Your task to perform on an android device: Search for "razer huntsman" on ebay.com, select the first entry, add it to the cart, then select checkout. Image 0: 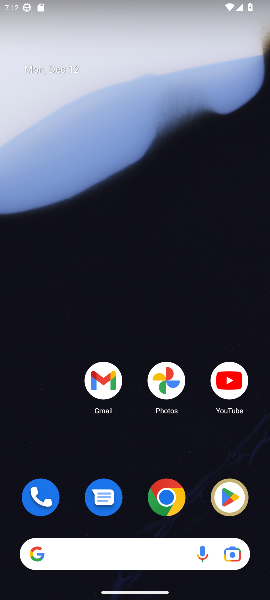
Step 0: press home button
Your task to perform on an android device: Search for "razer huntsman" on ebay.com, select the first entry, add it to the cart, then select checkout. Image 1: 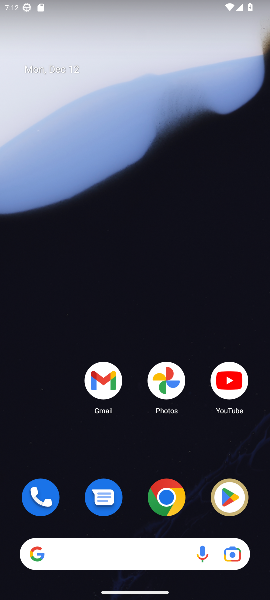
Step 1: drag from (48, 420) to (44, 34)
Your task to perform on an android device: Search for "razer huntsman" on ebay.com, select the first entry, add it to the cart, then select checkout. Image 2: 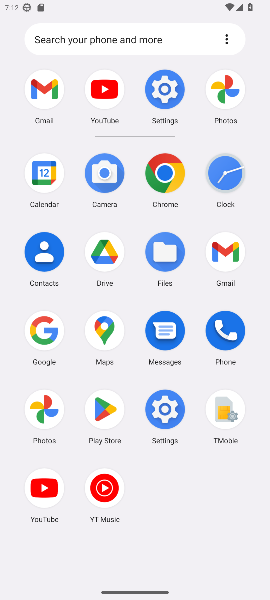
Step 2: click (43, 326)
Your task to perform on an android device: Search for "razer huntsman" on ebay.com, select the first entry, add it to the cart, then select checkout. Image 3: 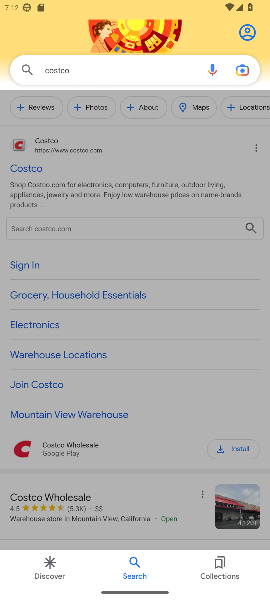
Step 3: click (112, 64)
Your task to perform on an android device: Search for "razer huntsman" on ebay.com, select the first entry, add it to the cart, then select checkout. Image 4: 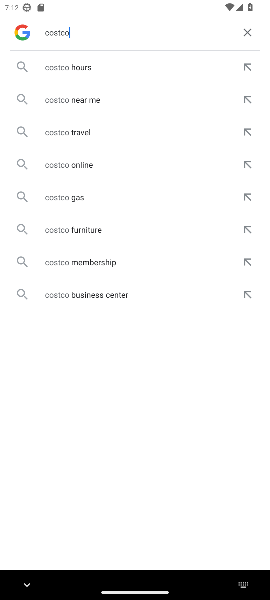
Step 4: click (246, 29)
Your task to perform on an android device: Search for "razer huntsman" on ebay.com, select the first entry, add it to the cart, then select checkout. Image 5: 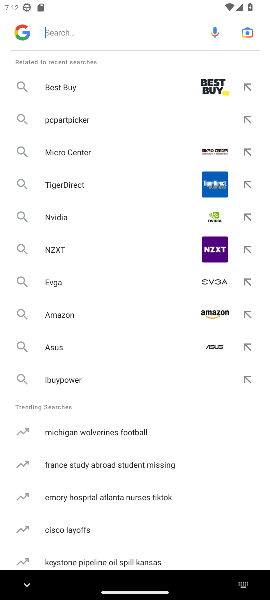
Step 5: type "ebay.com"
Your task to perform on an android device: Search for "razer huntsman" on ebay.com, select the first entry, add it to the cart, then select checkout. Image 6: 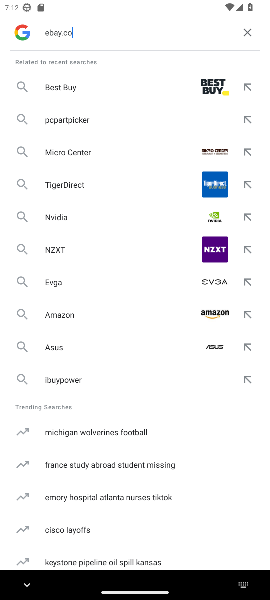
Step 6: press enter
Your task to perform on an android device: Search for "razer huntsman" on ebay.com, select the first entry, add it to the cart, then select checkout. Image 7: 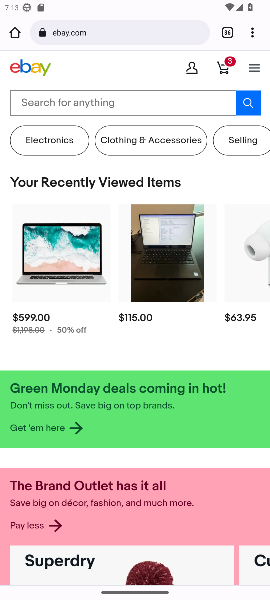
Step 7: click (32, 95)
Your task to perform on an android device: Search for "razer huntsman" on ebay.com, select the first entry, add it to the cart, then select checkout. Image 8: 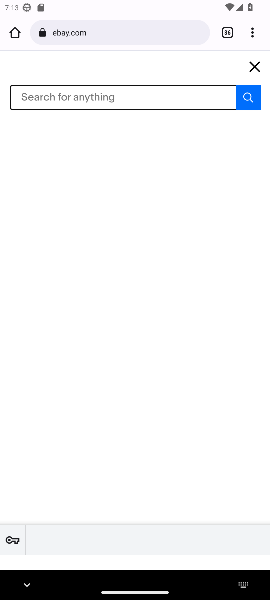
Step 8: type "razer huntsman"
Your task to perform on an android device: Search for "razer huntsman" on ebay.com, select the first entry, add it to the cart, then select checkout. Image 9: 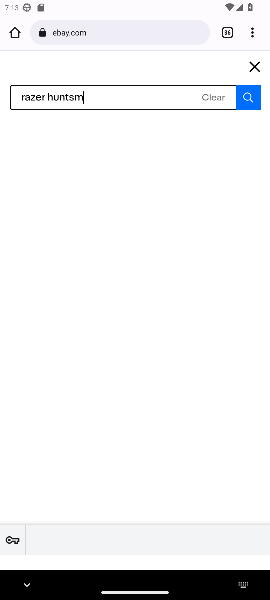
Step 9: press enter
Your task to perform on an android device: Search for "razer huntsman" on ebay.com, select the first entry, add it to the cart, then select checkout. Image 10: 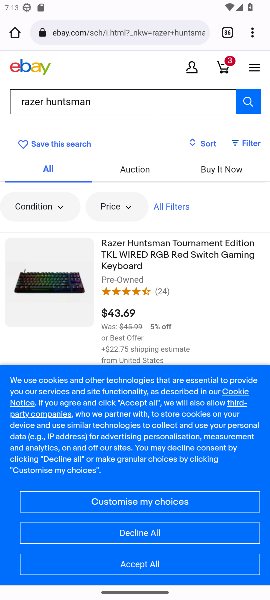
Step 10: click (123, 246)
Your task to perform on an android device: Search for "razer huntsman" on ebay.com, select the first entry, add it to the cart, then select checkout. Image 11: 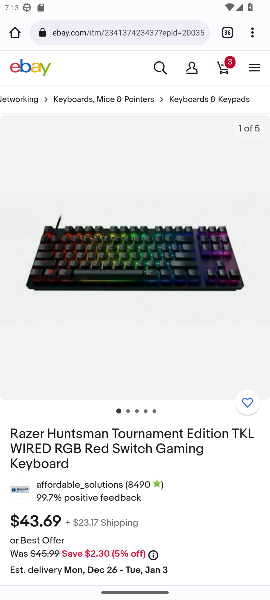
Step 11: drag from (152, 314) to (153, 161)
Your task to perform on an android device: Search for "razer huntsman" on ebay.com, select the first entry, add it to the cart, then select checkout. Image 12: 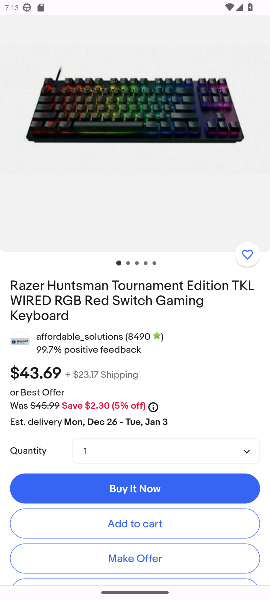
Step 12: drag from (162, 510) to (162, 129)
Your task to perform on an android device: Search for "razer huntsman" on ebay.com, select the first entry, add it to the cart, then select checkout. Image 13: 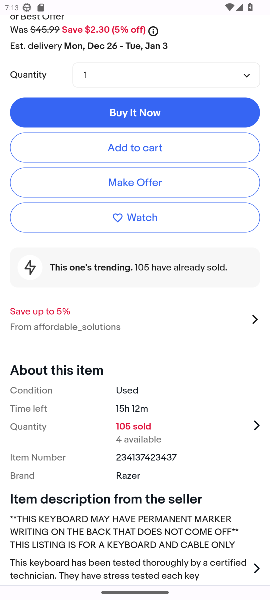
Step 13: click (124, 146)
Your task to perform on an android device: Search for "razer huntsman" on ebay.com, select the first entry, add it to the cart, then select checkout. Image 14: 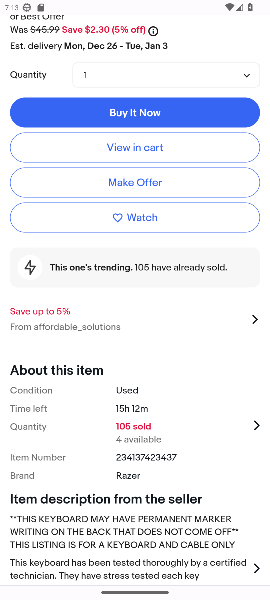
Step 14: click (136, 148)
Your task to perform on an android device: Search for "razer huntsman" on ebay.com, select the first entry, add it to the cart, then select checkout. Image 15: 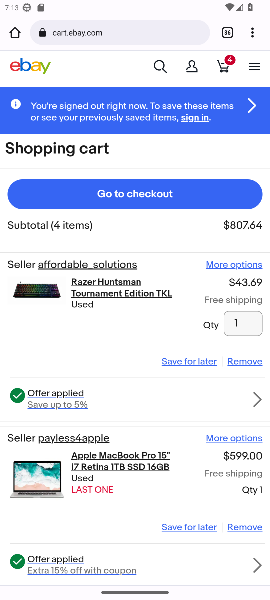
Step 15: click (137, 199)
Your task to perform on an android device: Search for "razer huntsman" on ebay.com, select the first entry, add it to the cart, then select checkout. Image 16: 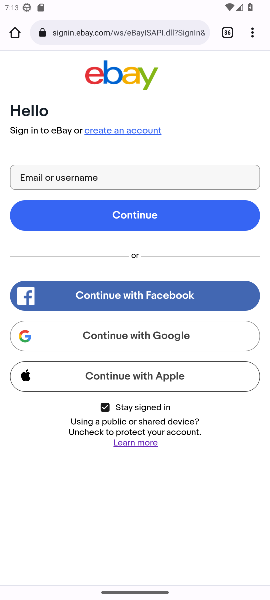
Step 16: task complete